Your task to perform on an android device: turn off data saver in the chrome app Image 0: 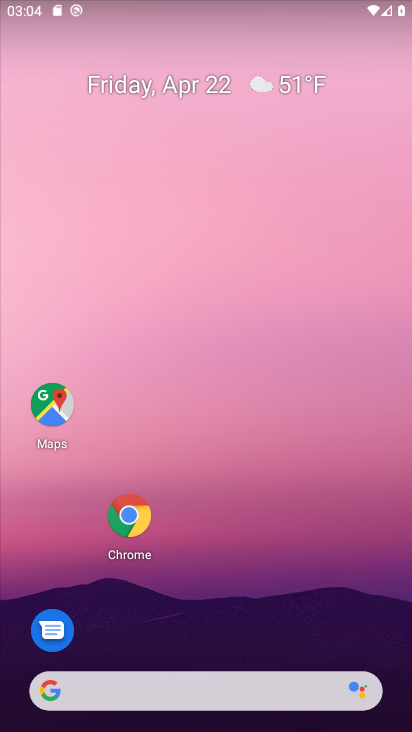
Step 0: click (126, 517)
Your task to perform on an android device: turn off data saver in the chrome app Image 1: 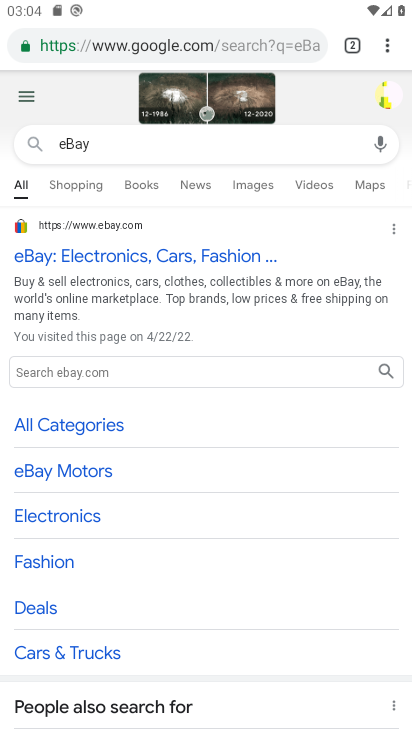
Step 1: click (383, 40)
Your task to perform on an android device: turn off data saver in the chrome app Image 2: 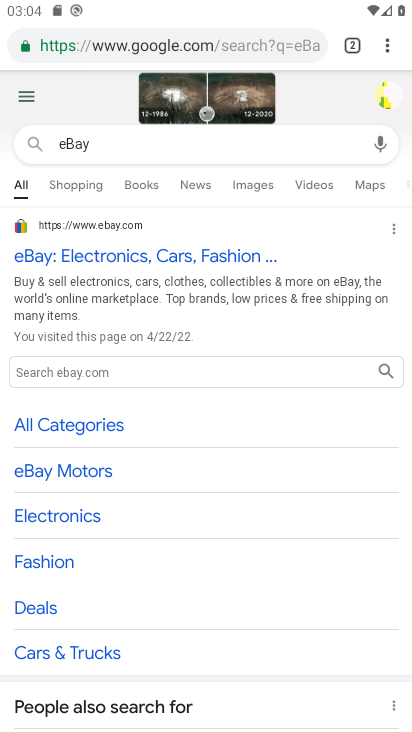
Step 2: click (383, 40)
Your task to perform on an android device: turn off data saver in the chrome app Image 3: 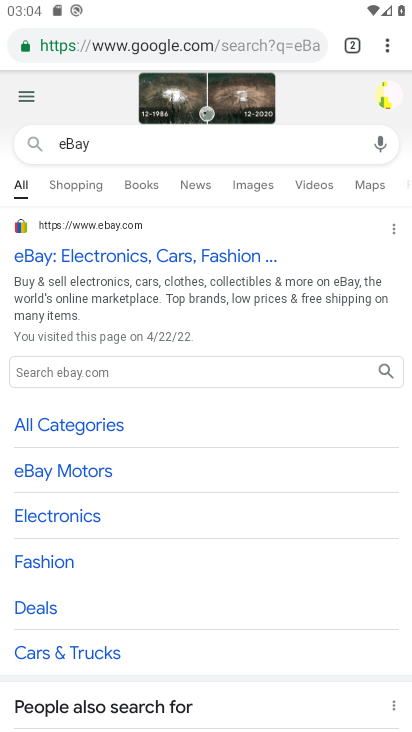
Step 3: click (383, 40)
Your task to perform on an android device: turn off data saver in the chrome app Image 4: 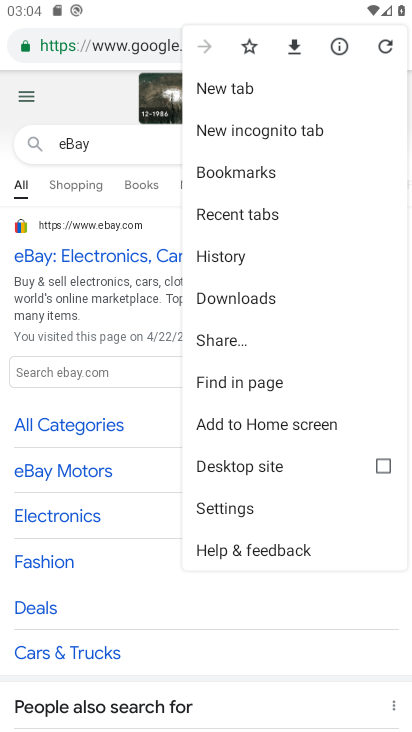
Step 4: click (223, 501)
Your task to perform on an android device: turn off data saver in the chrome app Image 5: 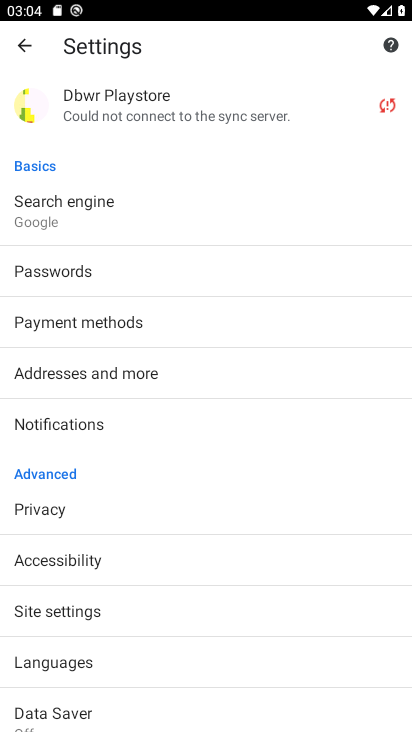
Step 5: click (48, 709)
Your task to perform on an android device: turn off data saver in the chrome app Image 6: 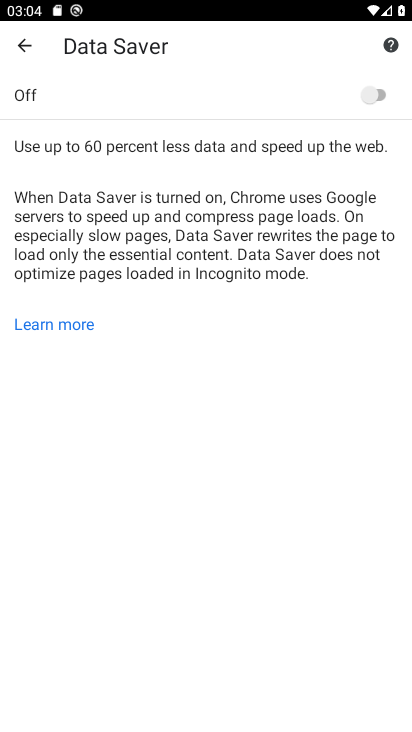
Step 6: task complete